Your task to perform on an android device: What's on my calendar tomorrow? Image 0: 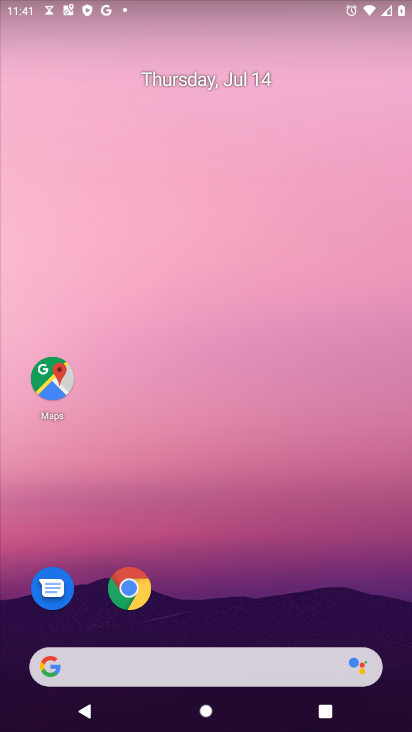
Step 0: press home button
Your task to perform on an android device: What's on my calendar tomorrow? Image 1: 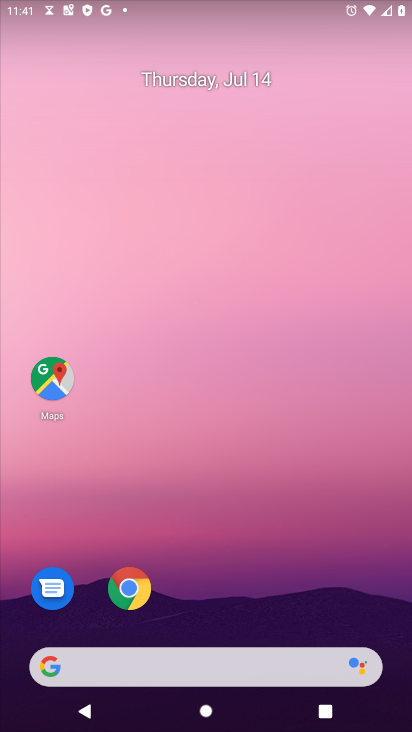
Step 1: drag from (129, 629) to (262, 158)
Your task to perform on an android device: What's on my calendar tomorrow? Image 2: 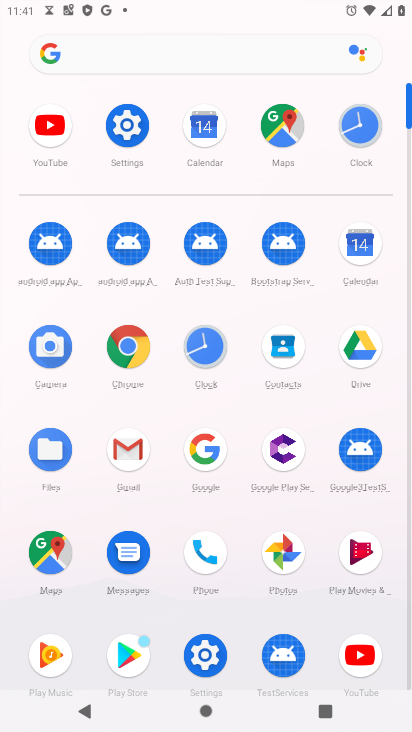
Step 2: click (362, 248)
Your task to perform on an android device: What's on my calendar tomorrow? Image 3: 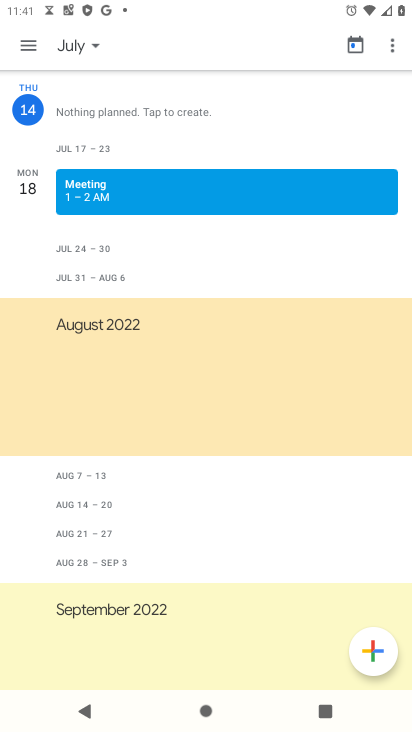
Step 3: click (64, 43)
Your task to perform on an android device: What's on my calendar tomorrow? Image 4: 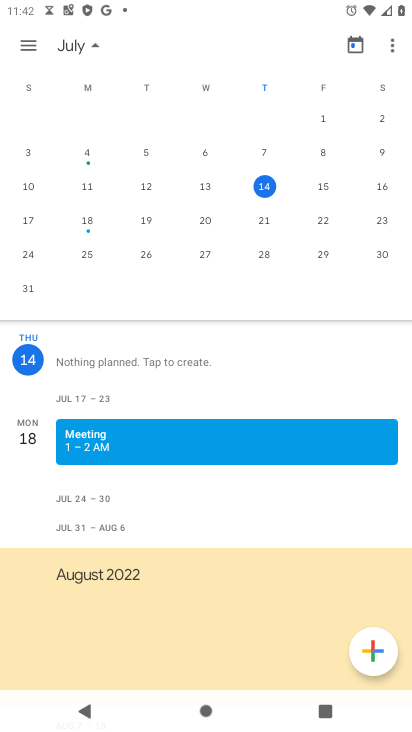
Step 4: click (319, 187)
Your task to perform on an android device: What's on my calendar tomorrow? Image 5: 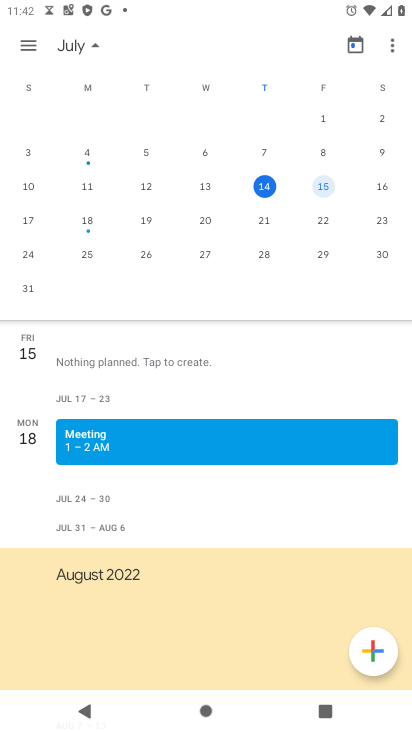
Step 5: click (30, 44)
Your task to perform on an android device: What's on my calendar tomorrow? Image 6: 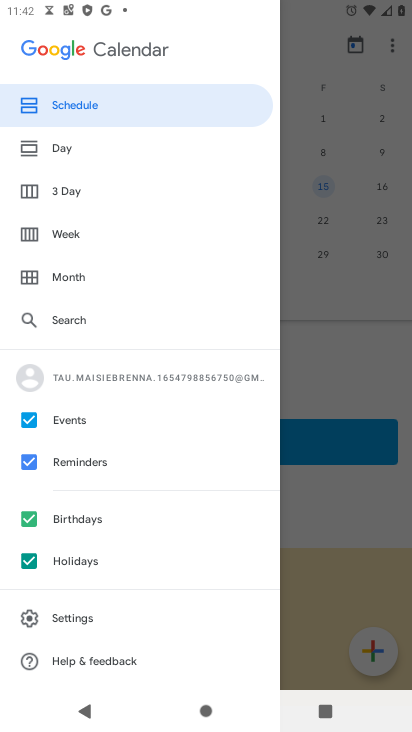
Step 6: click (78, 105)
Your task to perform on an android device: What's on my calendar tomorrow? Image 7: 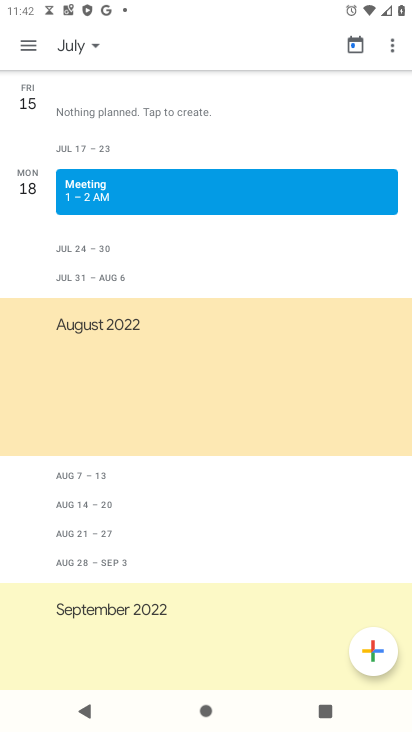
Step 7: task complete